Your task to perform on an android device: turn on sleep mode Image 0: 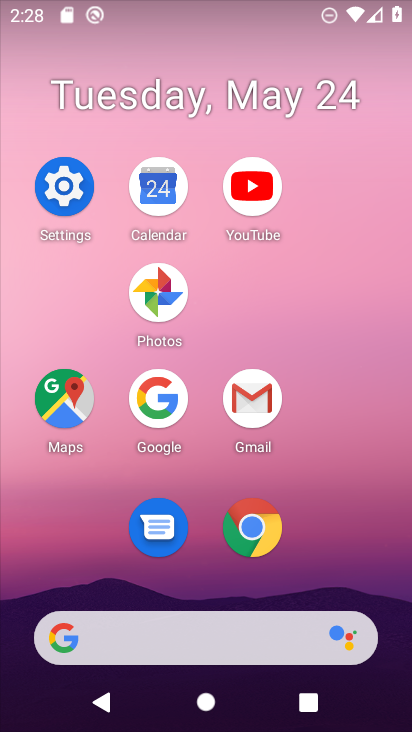
Step 0: click (82, 178)
Your task to perform on an android device: turn on sleep mode Image 1: 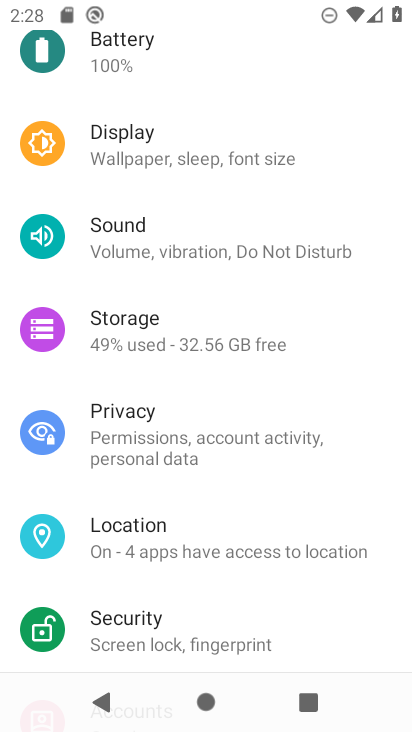
Step 1: click (287, 129)
Your task to perform on an android device: turn on sleep mode Image 2: 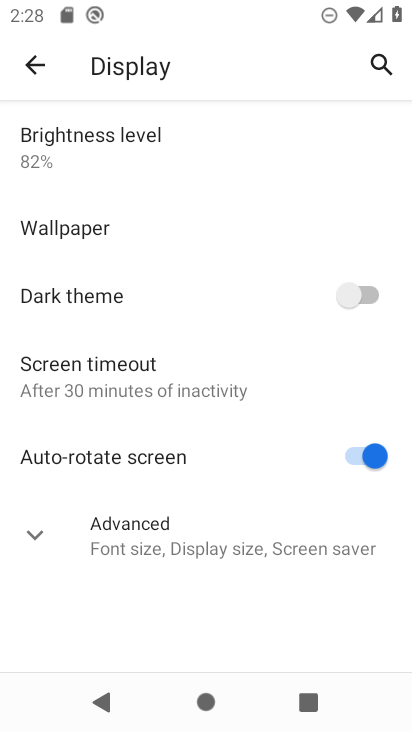
Step 2: click (262, 365)
Your task to perform on an android device: turn on sleep mode Image 3: 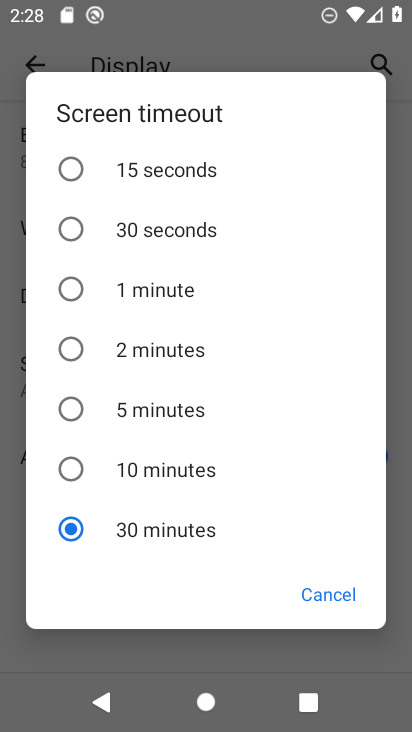
Step 3: task complete